Your task to perform on an android device: Open Chrome and go to the settings page Image 0: 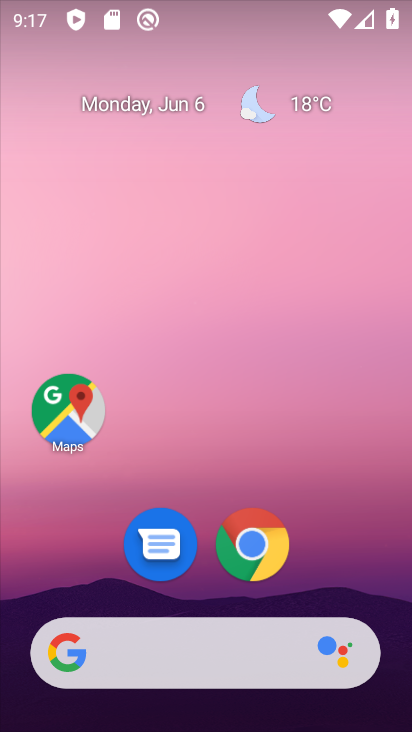
Step 0: click (252, 547)
Your task to perform on an android device: Open Chrome and go to the settings page Image 1: 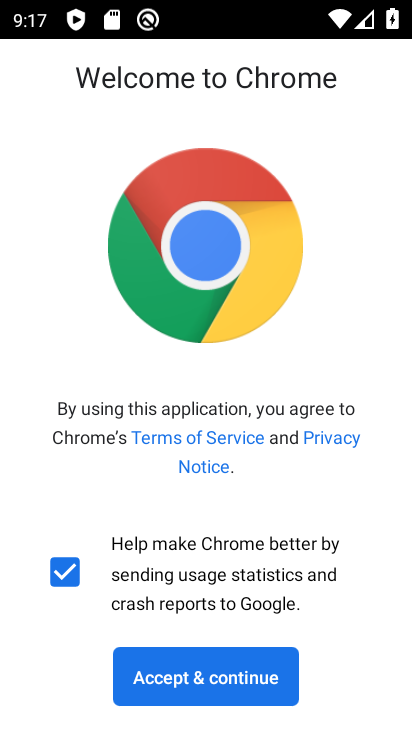
Step 1: click (198, 674)
Your task to perform on an android device: Open Chrome and go to the settings page Image 2: 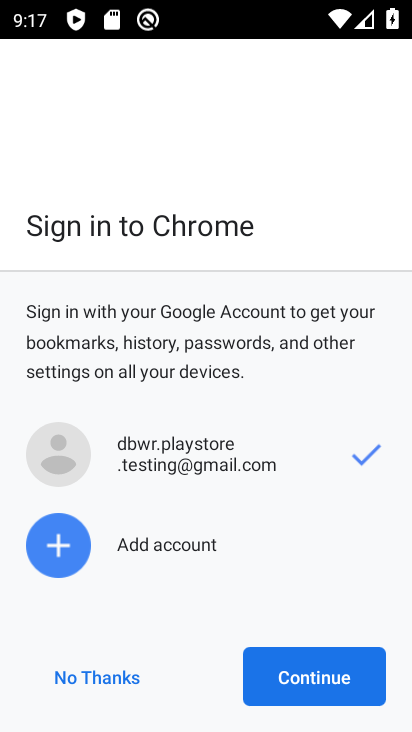
Step 2: click (314, 676)
Your task to perform on an android device: Open Chrome and go to the settings page Image 3: 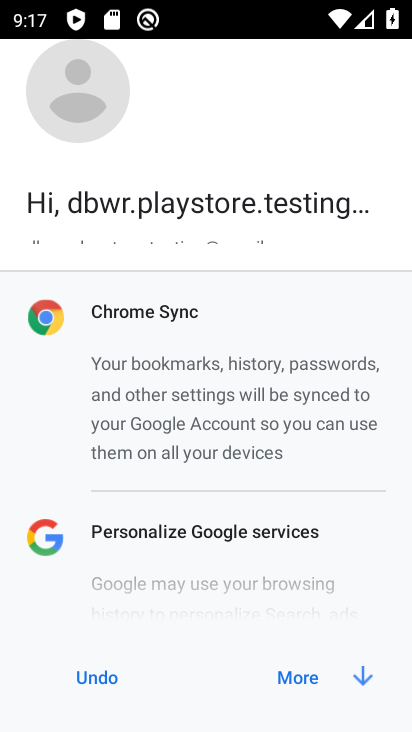
Step 3: click (314, 676)
Your task to perform on an android device: Open Chrome and go to the settings page Image 4: 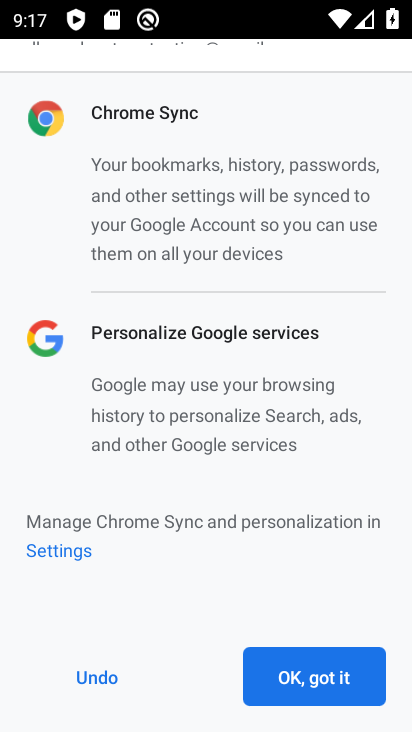
Step 4: click (314, 676)
Your task to perform on an android device: Open Chrome and go to the settings page Image 5: 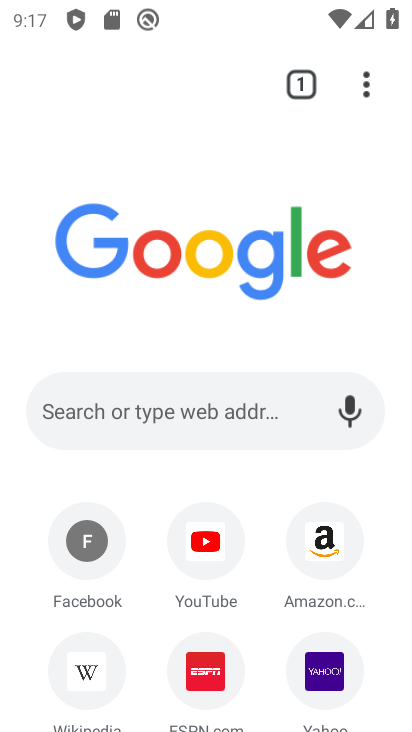
Step 5: click (363, 90)
Your task to perform on an android device: Open Chrome and go to the settings page Image 6: 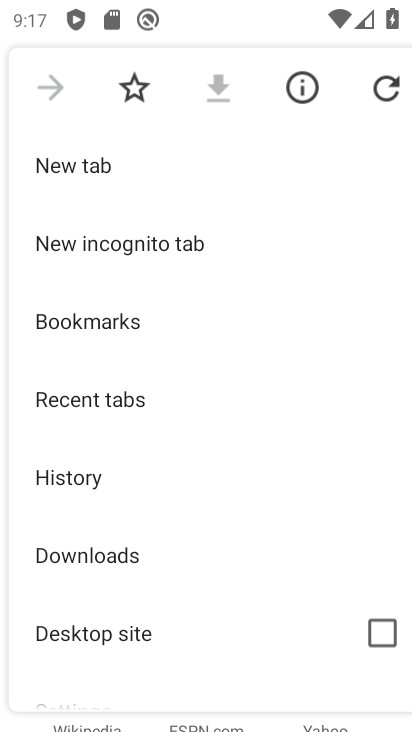
Step 6: drag from (227, 652) to (254, 242)
Your task to perform on an android device: Open Chrome and go to the settings page Image 7: 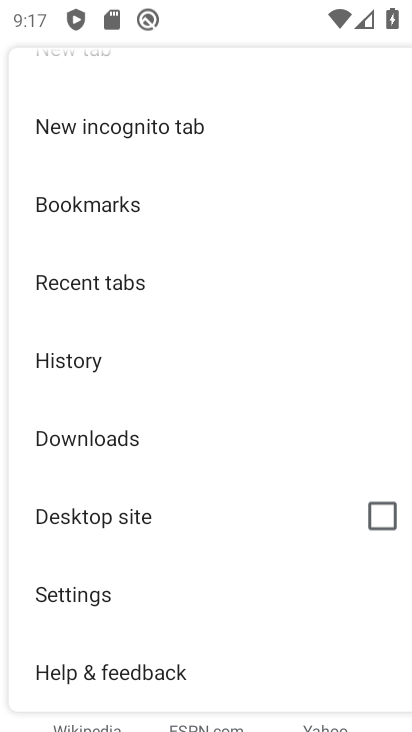
Step 7: click (88, 604)
Your task to perform on an android device: Open Chrome and go to the settings page Image 8: 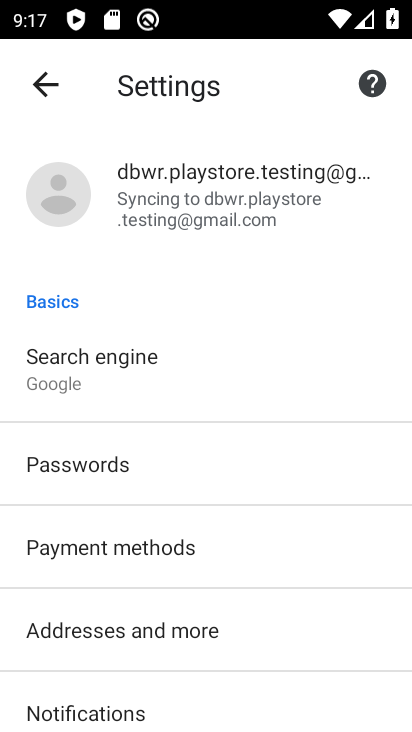
Step 8: task complete